Your task to perform on an android device: toggle location history Image 0: 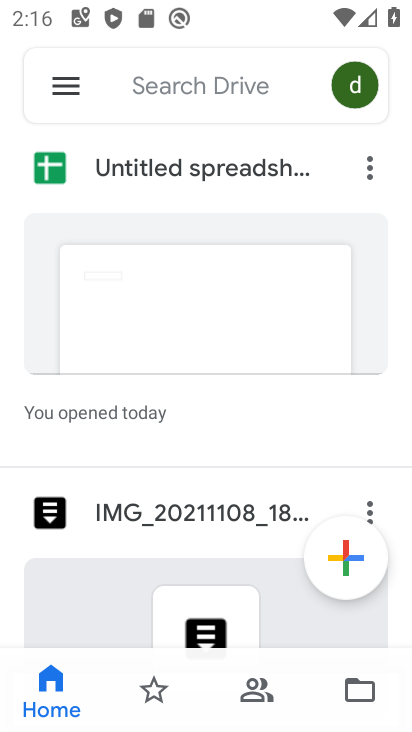
Step 0: press home button
Your task to perform on an android device: toggle location history Image 1: 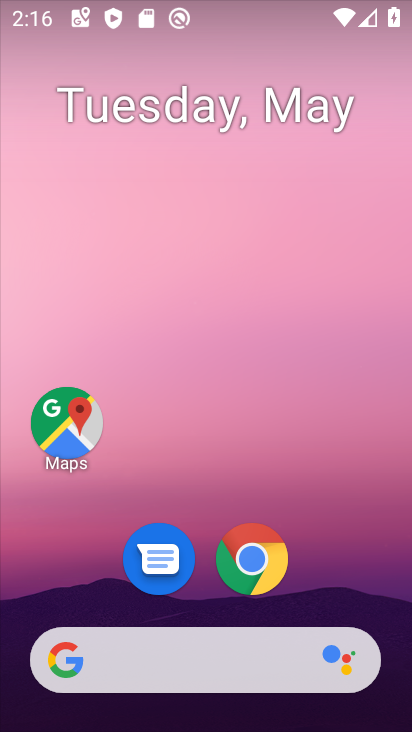
Step 1: drag from (203, 672) to (330, 286)
Your task to perform on an android device: toggle location history Image 2: 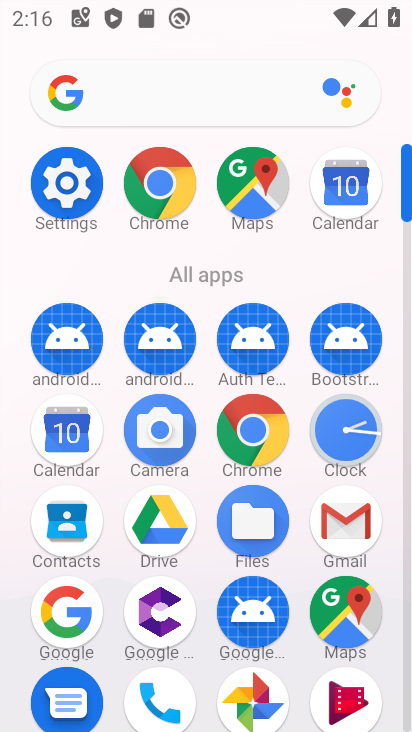
Step 2: click (257, 183)
Your task to perform on an android device: toggle location history Image 3: 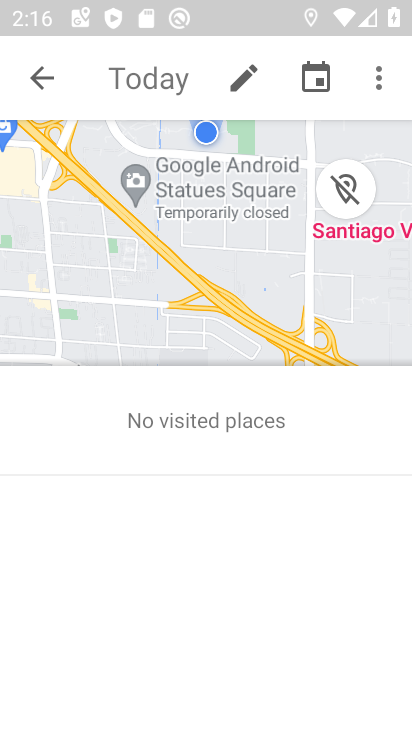
Step 3: click (375, 87)
Your task to perform on an android device: toggle location history Image 4: 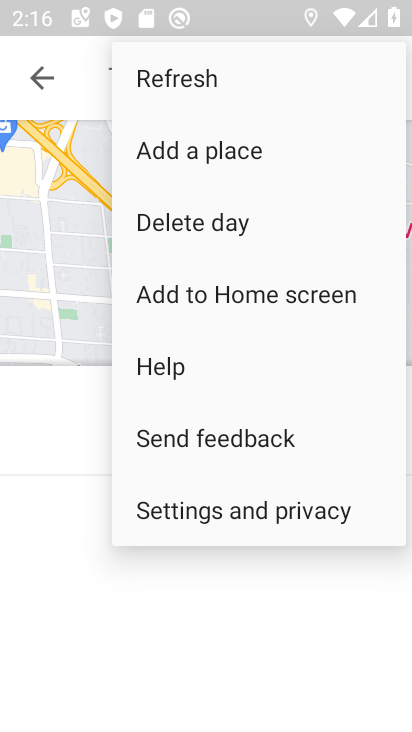
Step 4: click (248, 517)
Your task to perform on an android device: toggle location history Image 5: 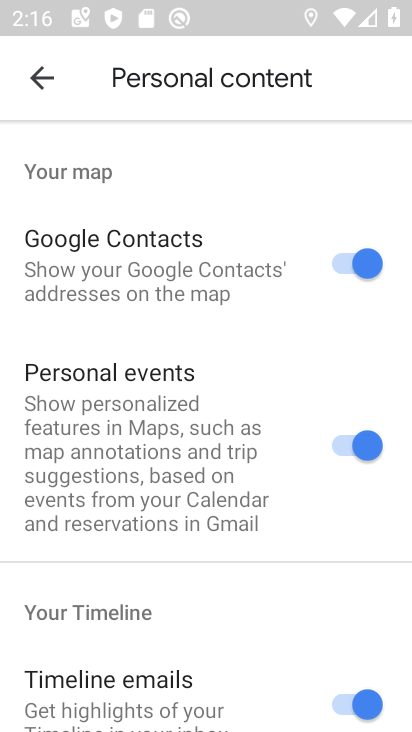
Step 5: drag from (174, 615) to (309, 124)
Your task to perform on an android device: toggle location history Image 6: 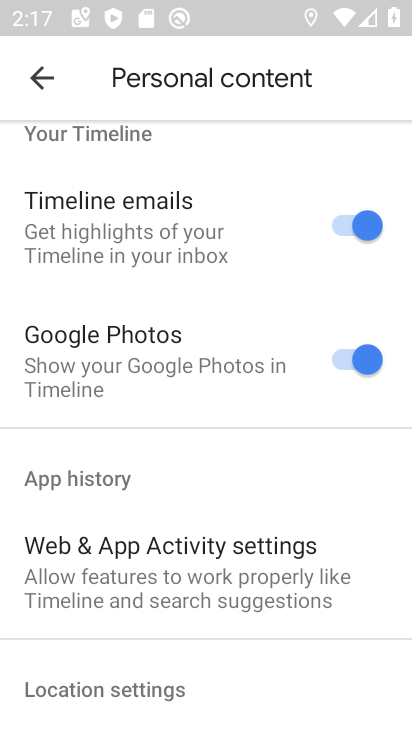
Step 6: drag from (167, 501) to (301, 108)
Your task to perform on an android device: toggle location history Image 7: 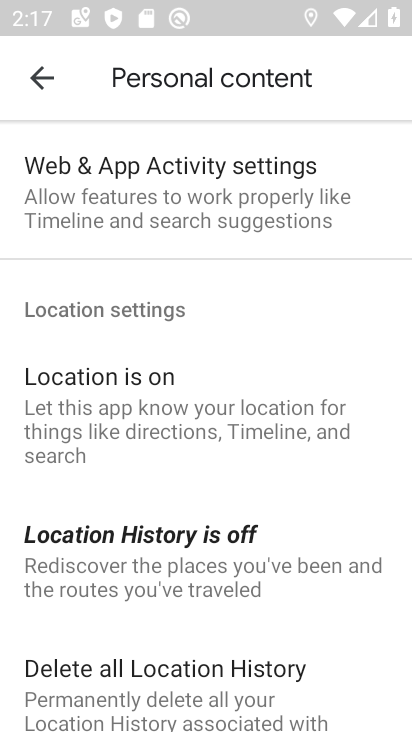
Step 7: click (171, 554)
Your task to perform on an android device: toggle location history Image 8: 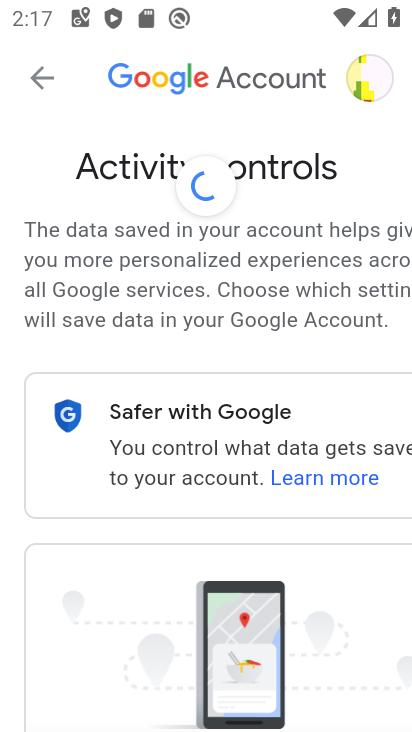
Step 8: drag from (145, 604) to (314, 239)
Your task to perform on an android device: toggle location history Image 9: 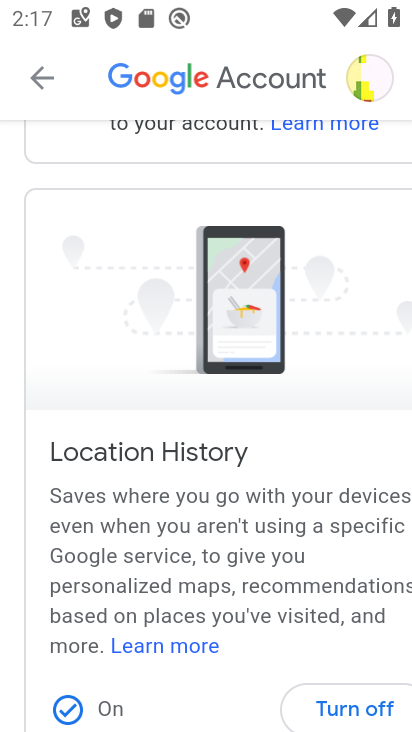
Step 9: drag from (183, 548) to (343, 249)
Your task to perform on an android device: toggle location history Image 10: 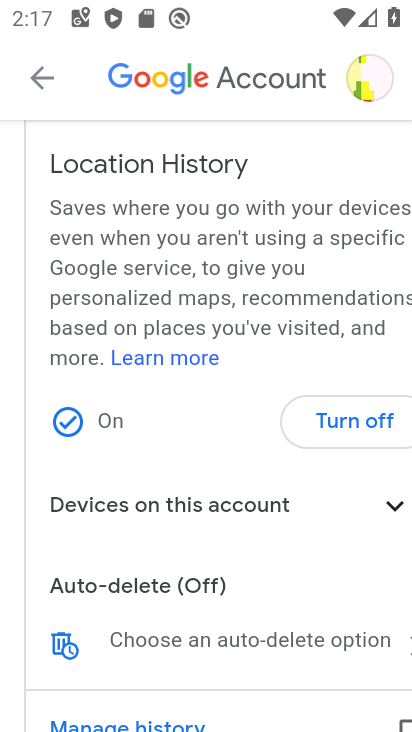
Step 10: click (350, 424)
Your task to perform on an android device: toggle location history Image 11: 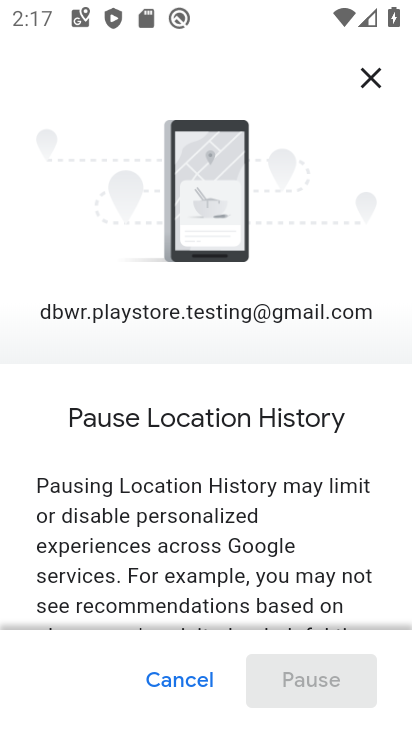
Step 11: drag from (197, 587) to (369, 215)
Your task to perform on an android device: toggle location history Image 12: 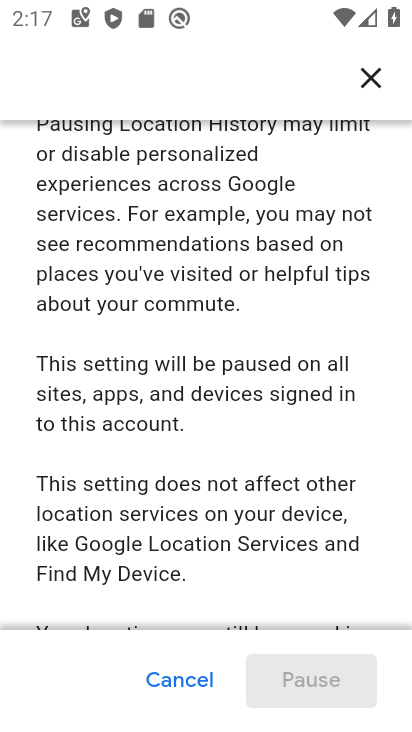
Step 12: drag from (253, 566) to (380, 271)
Your task to perform on an android device: toggle location history Image 13: 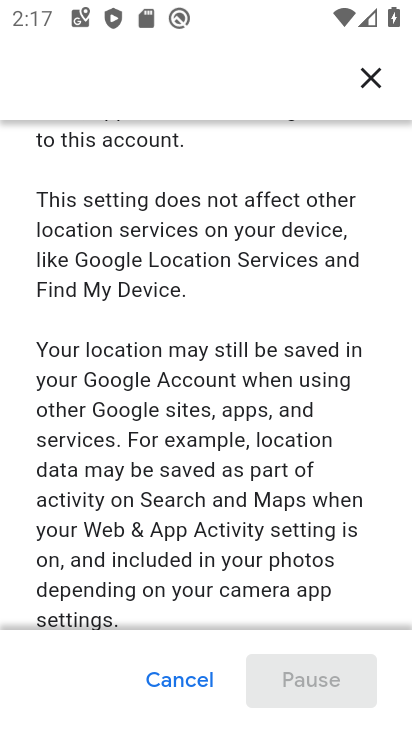
Step 13: drag from (243, 544) to (381, 222)
Your task to perform on an android device: toggle location history Image 14: 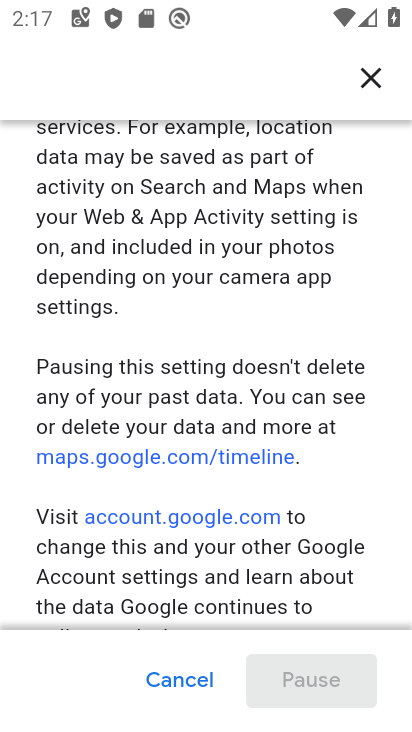
Step 14: drag from (256, 576) to (384, 162)
Your task to perform on an android device: toggle location history Image 15: 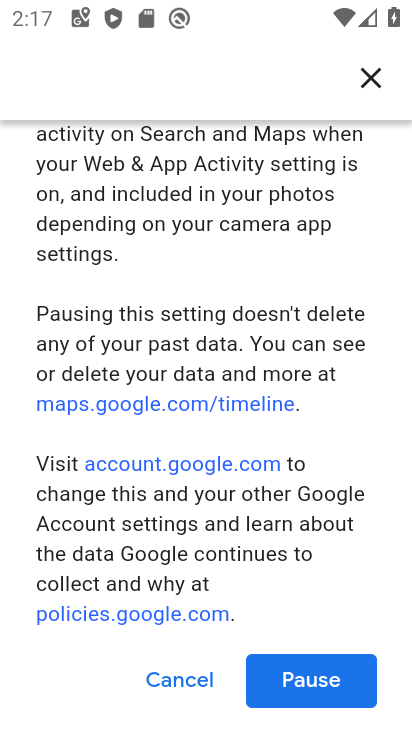
Step 15: click (305, 679)
Your task to perform on an android device: toggle location history Image 16: 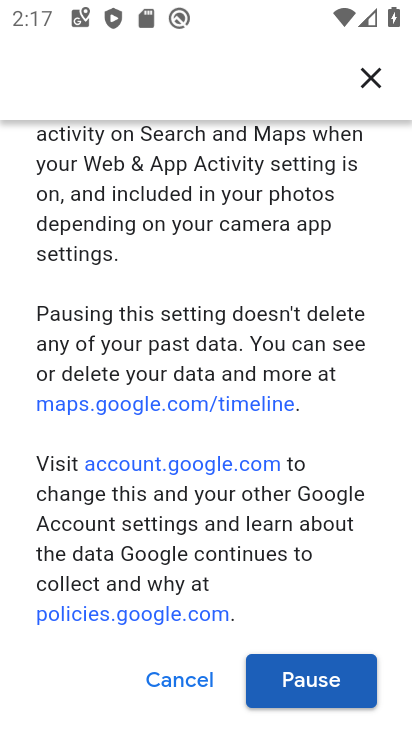
Step 16: click (316, 695)
Your task to perform on an android device: toggle location history Image 17: 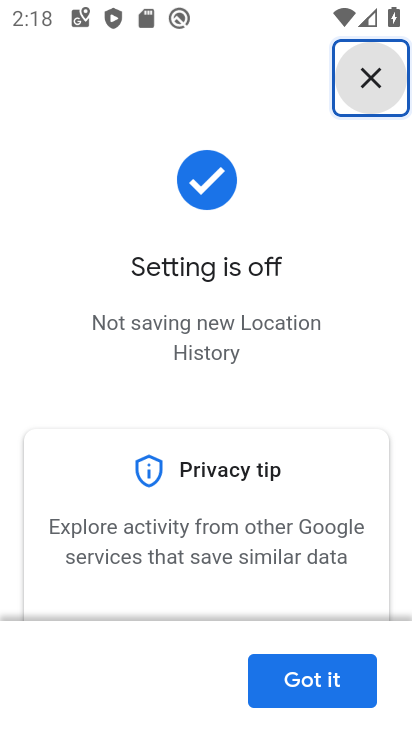
Step 17: task complete